Your task to perform on an android device: Open eBay Image 0: 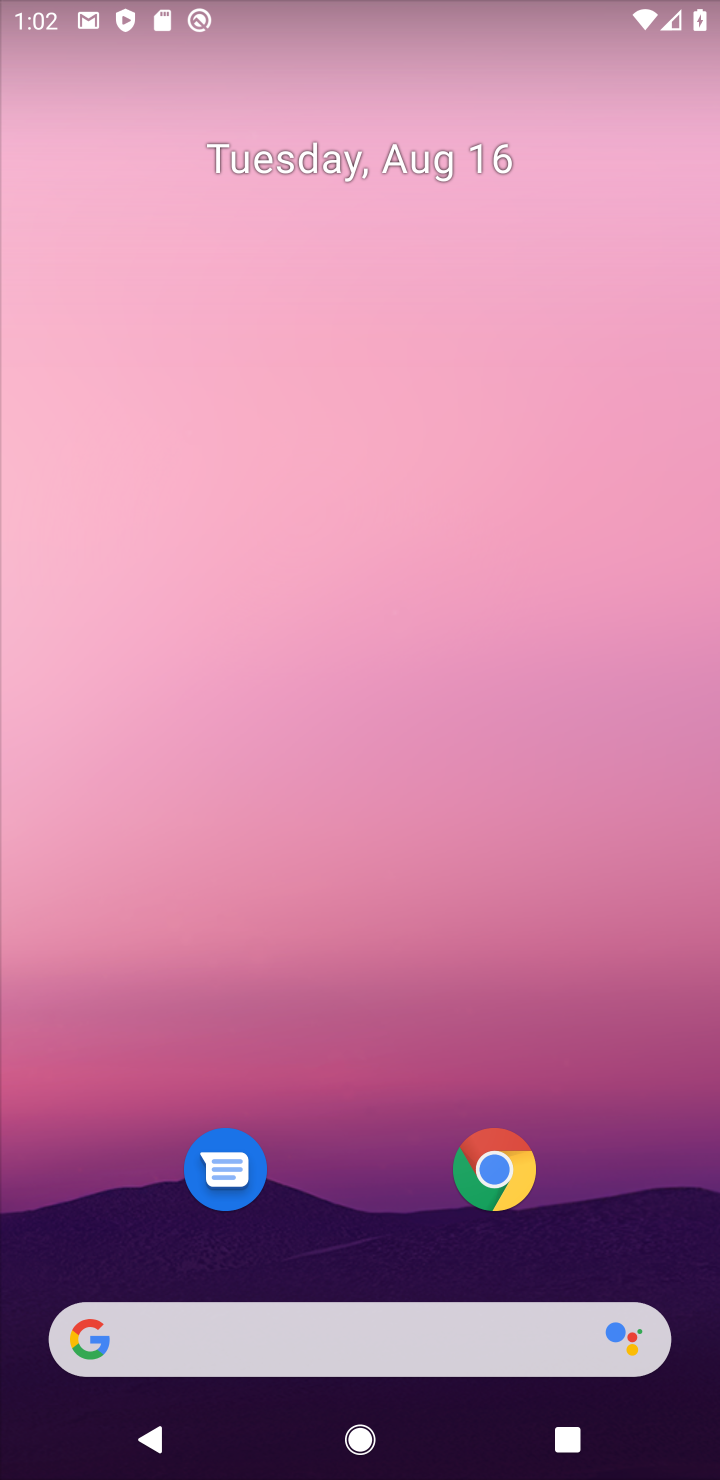
Step 0: click (249, 1315)
Your task to perform on an android device: Open eBay Image 1: 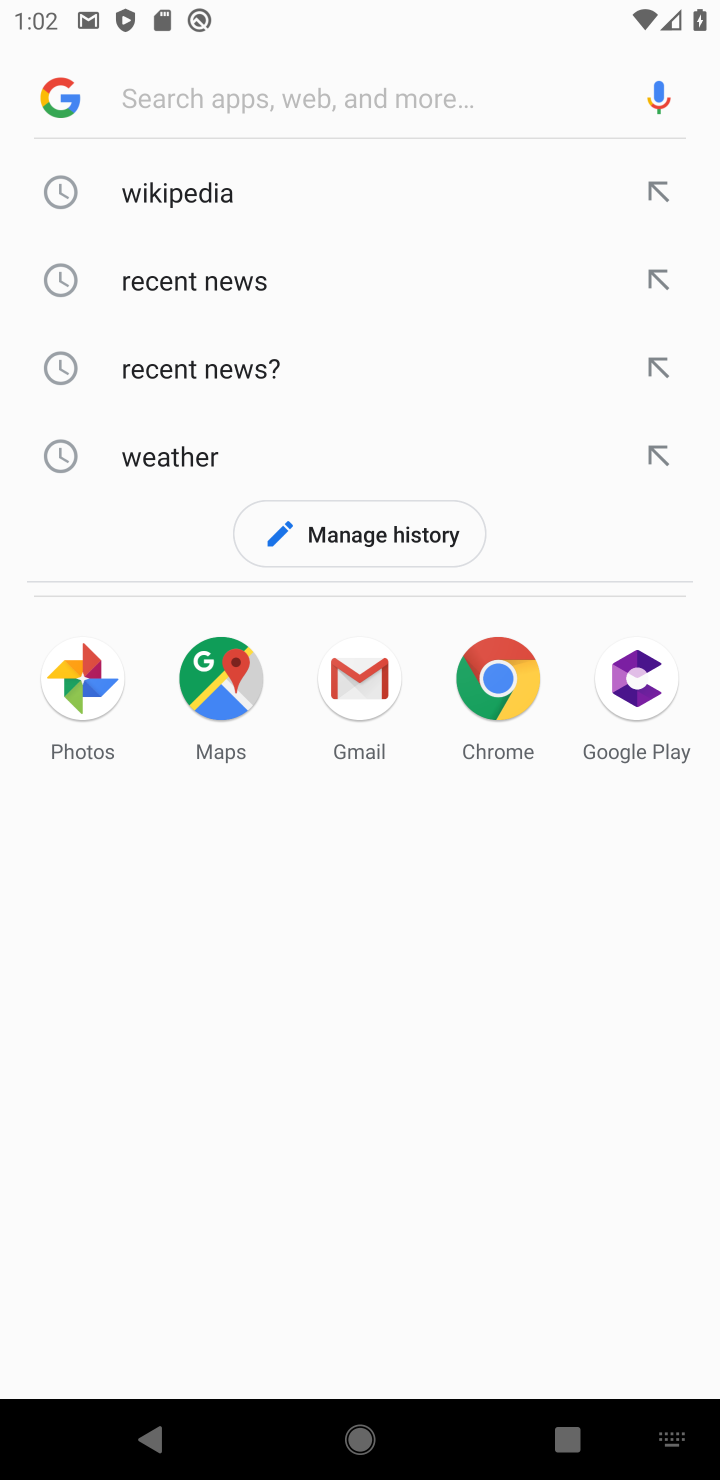
Step 1: type "eBay"
Your task to perform on an android device: Open eBay Image 2: 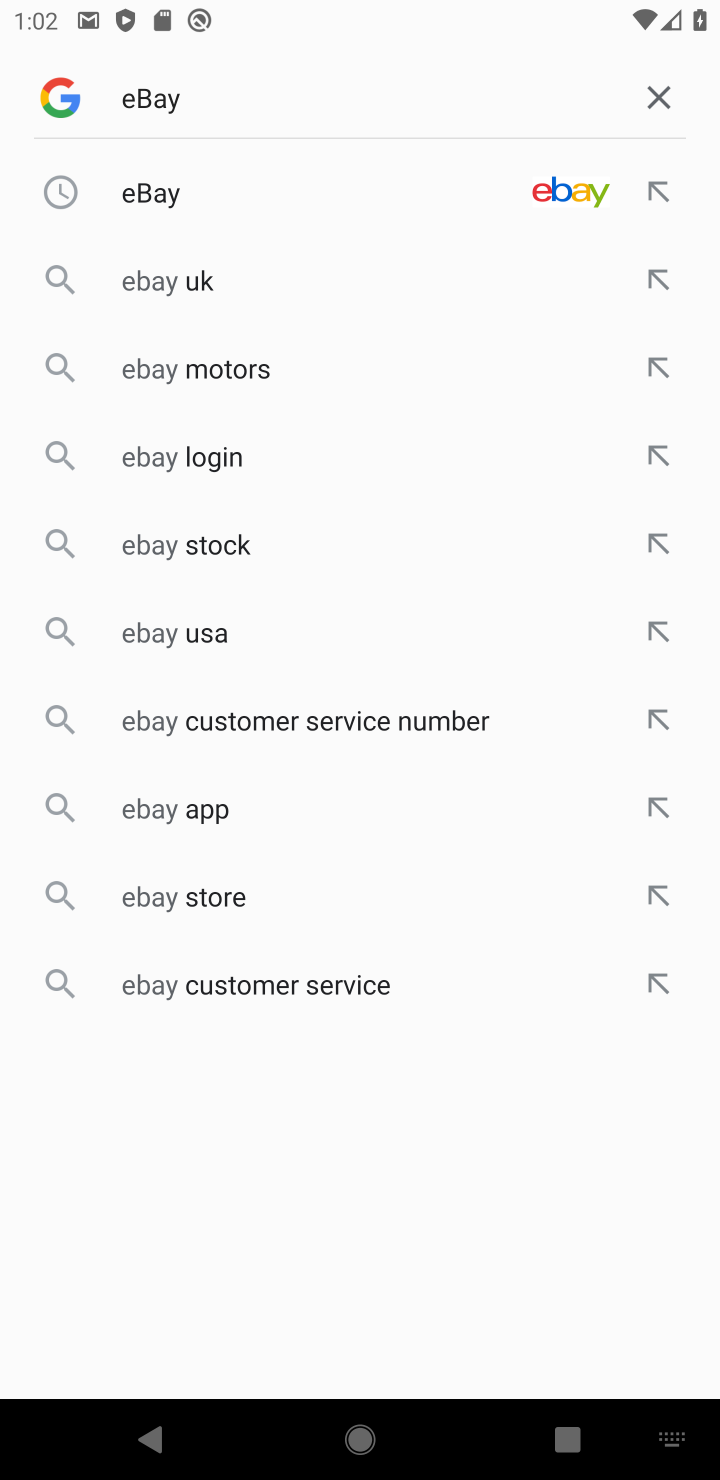
Step 2: click (159, 207)
Your task to perform on an android device: Open eBay Image 3: 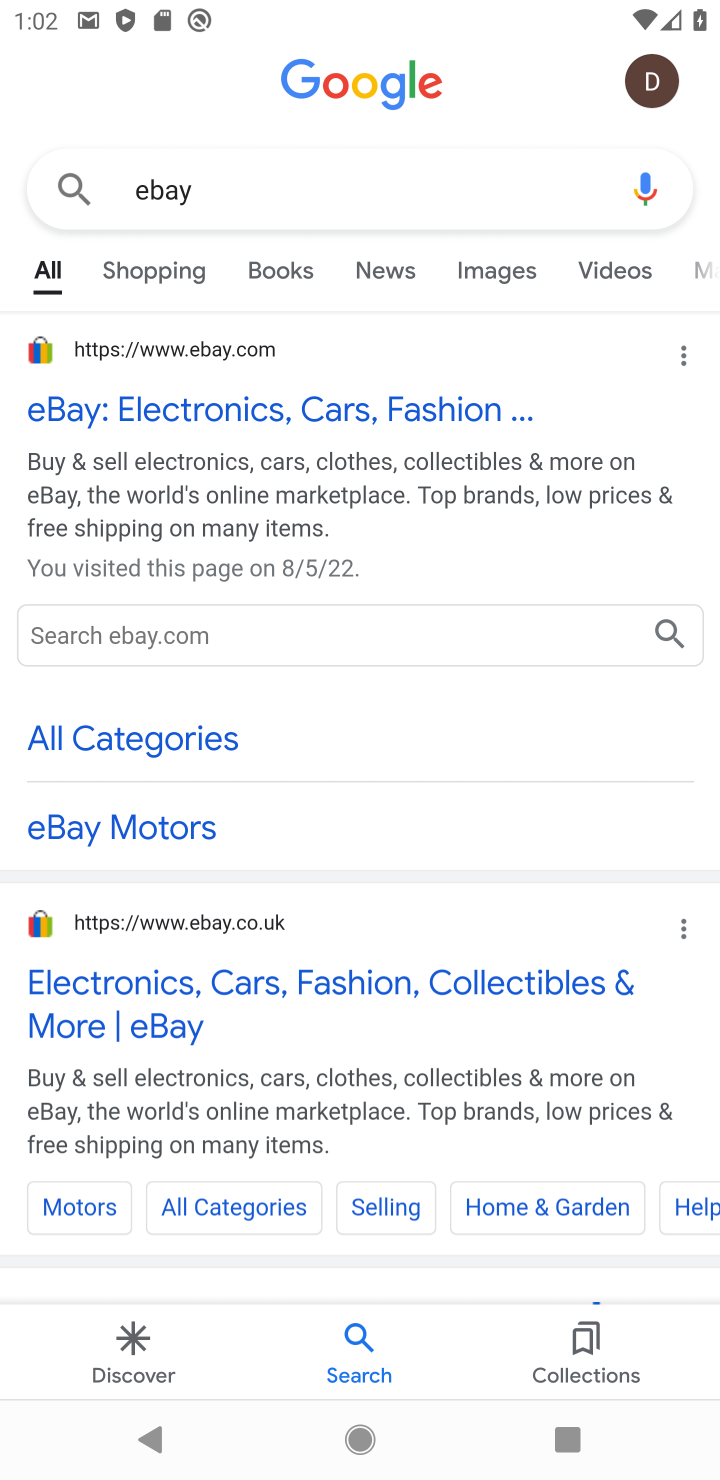
Step 3: task complete